Your task to perform on an android device: Open ESPN.com Image 0: 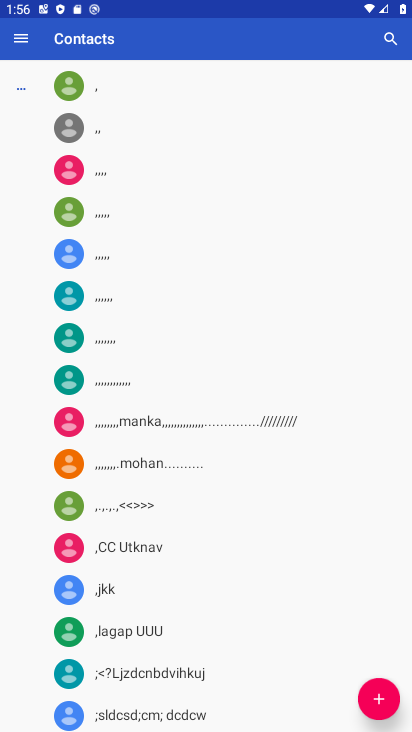
Step 0: press home button
Your task to perform on an android device: Open ESPN.com Image 1: 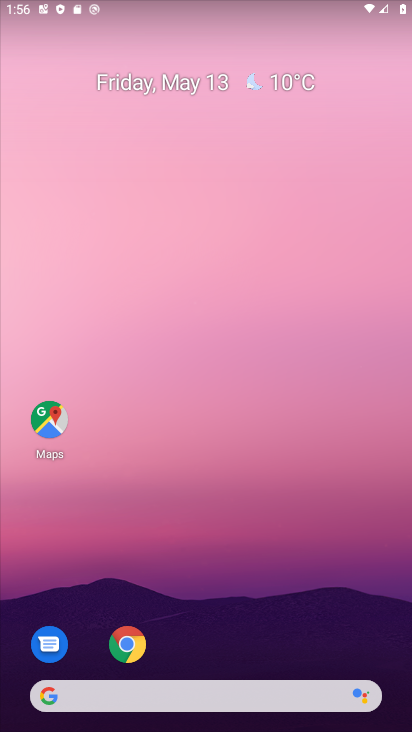
Step 1: click (128, 644)
Your task to perform on an android device: Open ESPN.com Image 2: 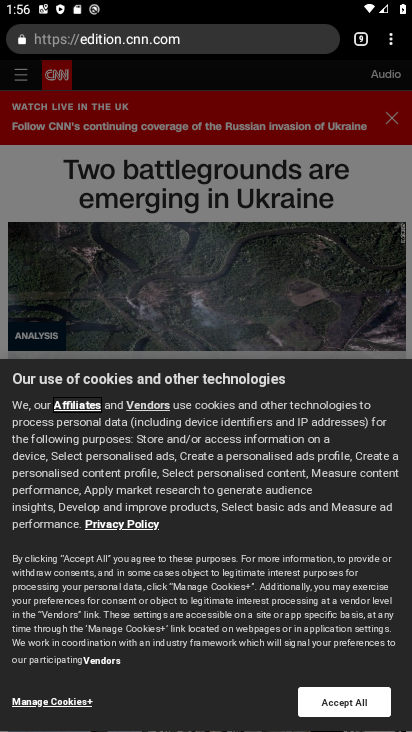
Step 2: click (392, 45)
Your task to perform on an android device: Open ESPN.com Image 3: 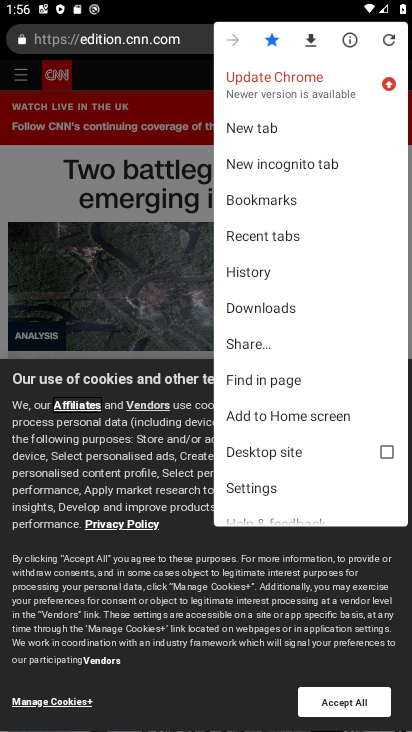
Step 3: click (252, 127)
Your task to perform on an android device: Open ESPN.com Image 4: 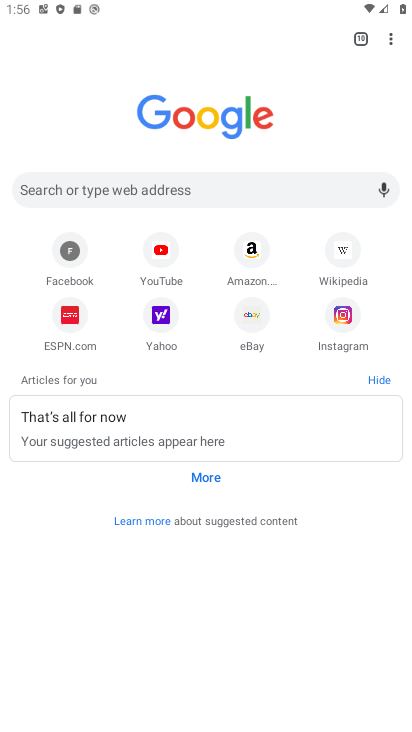
Step 4: click (137, 194)
Your task to perform on an android device: Open ESPN.com Image 5: 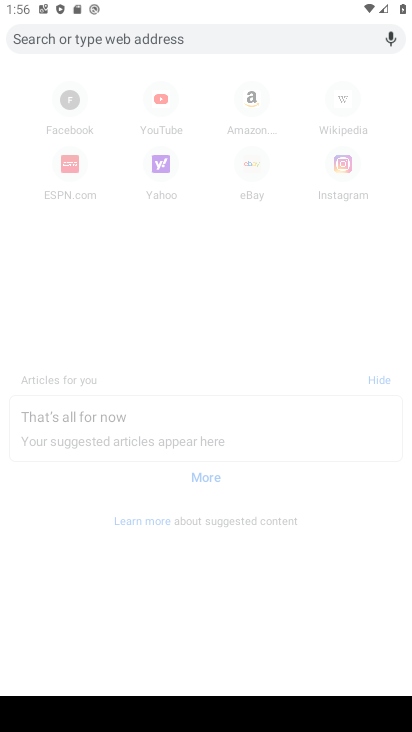
Step 5: type "ESPN.com"
Your task to perform on an android device: Open ESPN.com Image 6: 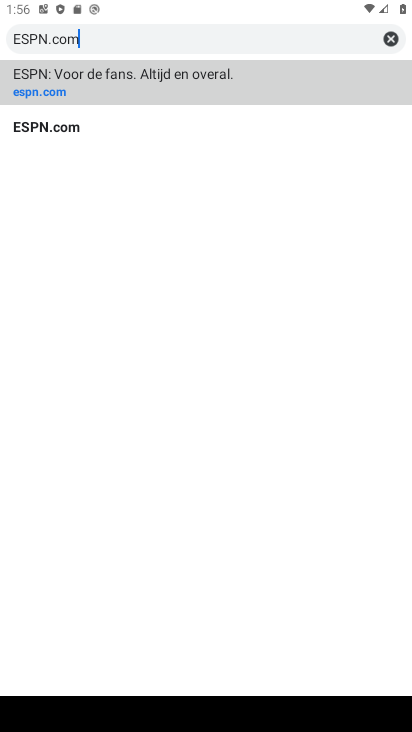
Step 6: click (51, 80)
Your task to perform on an android device: Open ESPN.com Image 7: 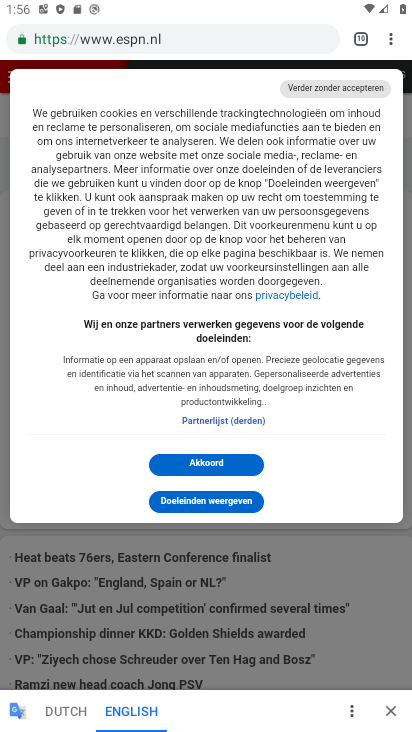
Step 7: task complete